Your task to perform on an android device: open wifi settings Image 0: 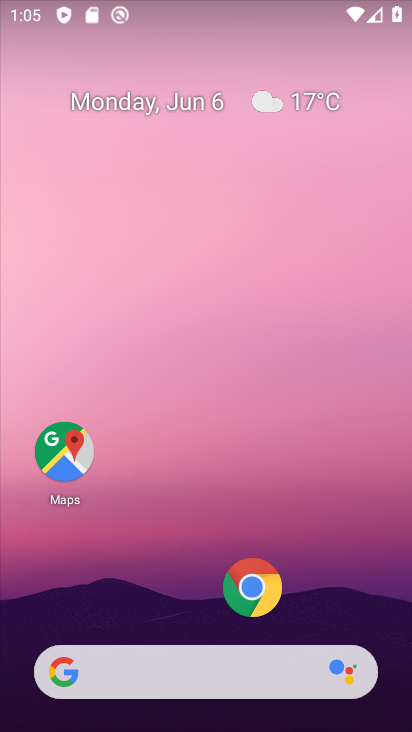
Step 0: drag from (164, 585) to (211, 63)
Your task to perform on an android device: open wifi settings Image 1: 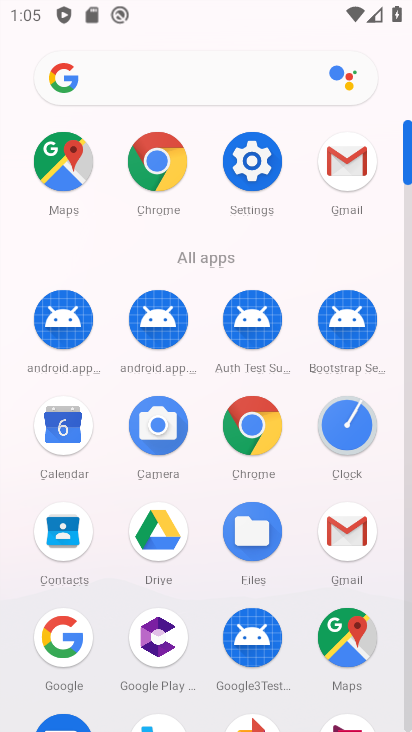
Step 1: click (245, 175)
Your task to perform on an android device: open wifi settings Image 2: 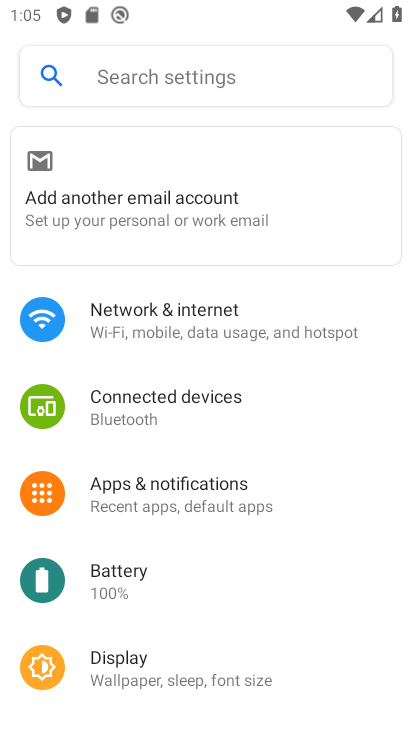
Step 2: click (208, 311)
Your task to perform on an android device: open wifi settings Image 3: 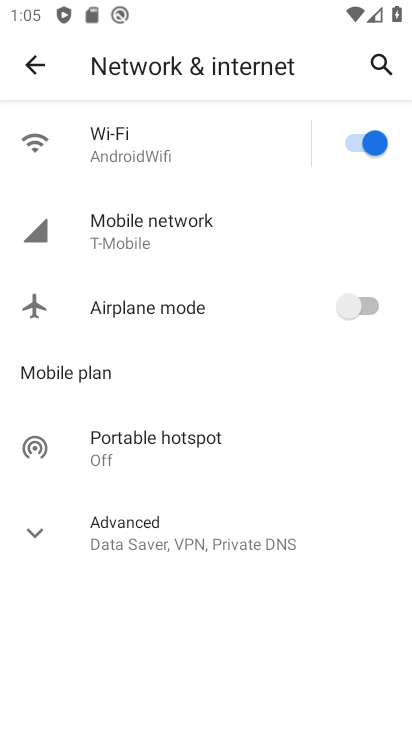
Step 3: click (128, 141)
Your task to perform on an android device: open wifi settings Image 4: 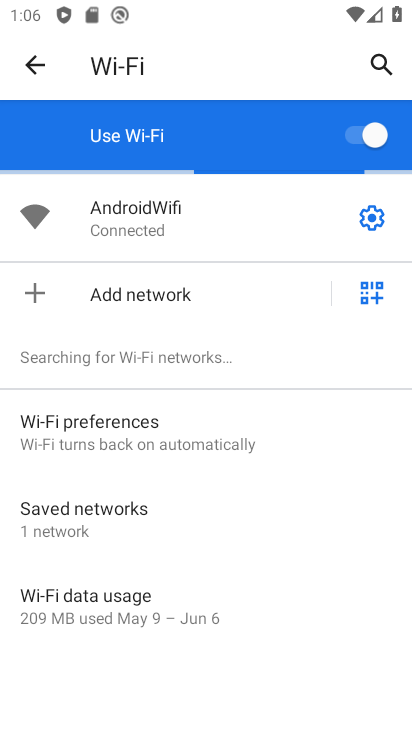
Step 4: task complete